Your task to perform on an android device: open the mobile data screen to see how much data has been used Image 0: 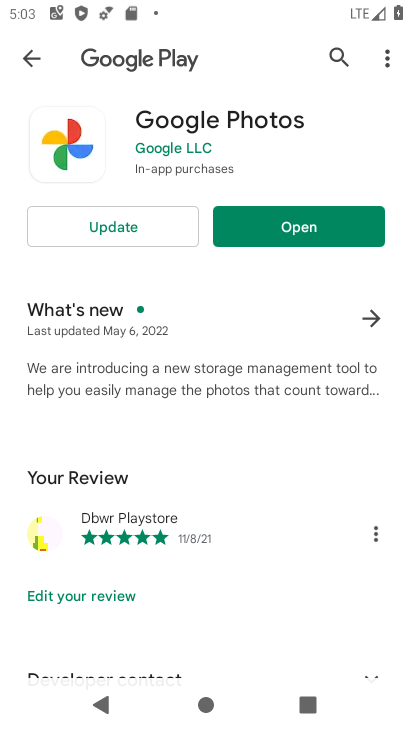
Step 0: press home button
Your task to perform on an android device: open the mobile data screen to see how much data has been used Image 1: 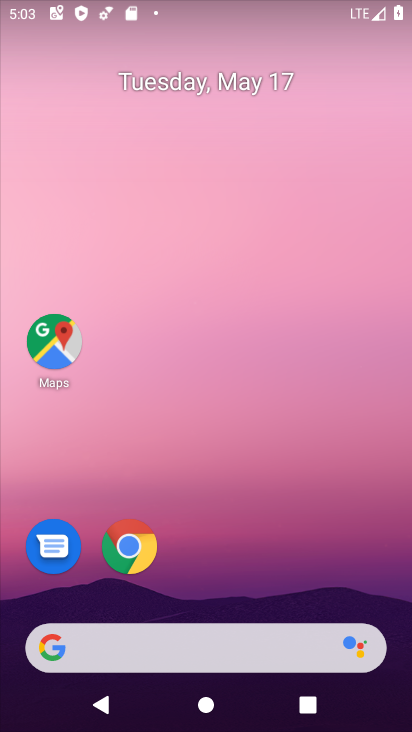
Step 1: drag from (235, 595) to (289, 175)
Your task to perform on an android device: open the mobile data screen to see how much data has been used Image 2: 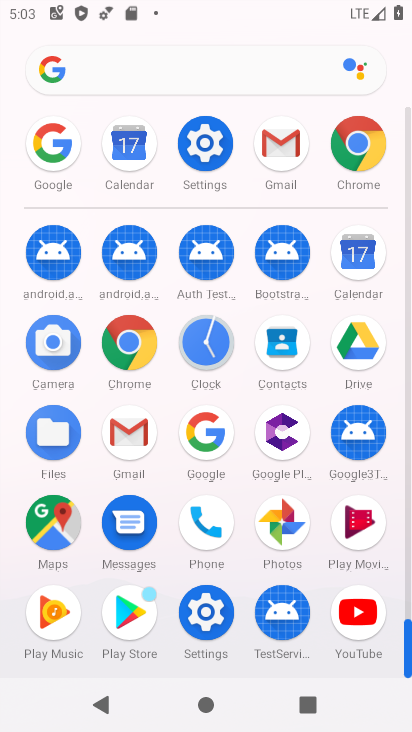
Step 2: click (201, 146)
Your task to perform on an android device: open the mobile data screen to see how much data has been used Image 3: 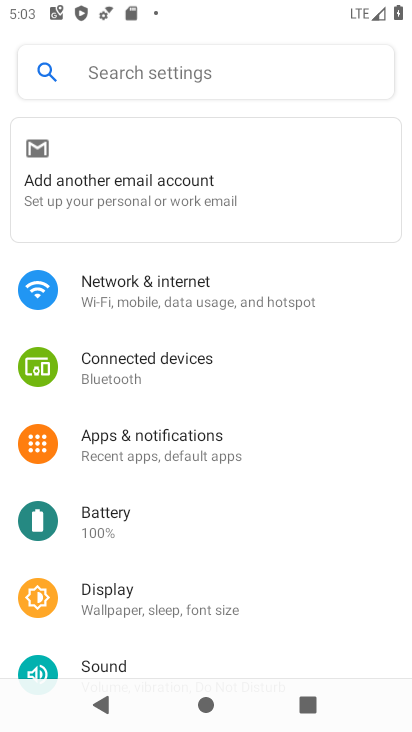
Step 3: click (180, 303)
Your task to perform on an android device: open the mobile data screen to see how much data has been used Image 4: 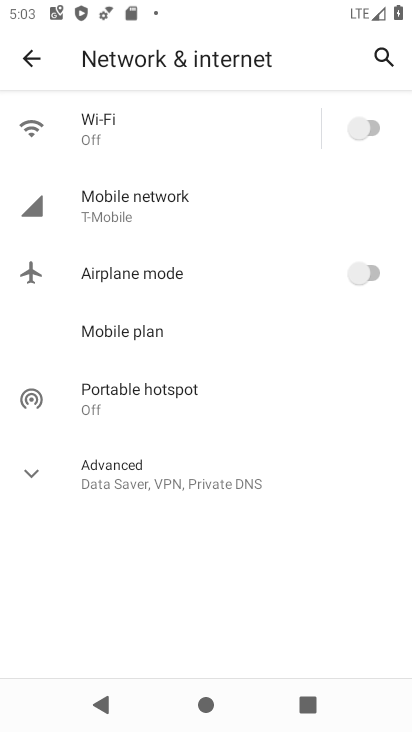
Step 4: click (149, 220)
Your task to perform on an android device: open the mobile data screen to see how much data has been used Image 5: 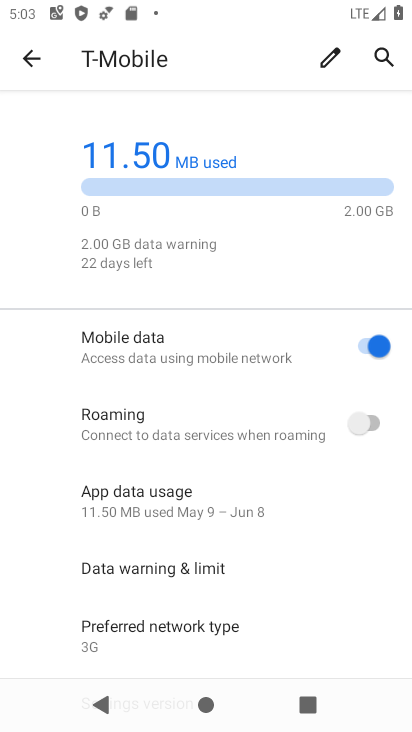
Step 5: task complete